Your task to perform on an android device: toggle show notifications on the lock screen Image 0: 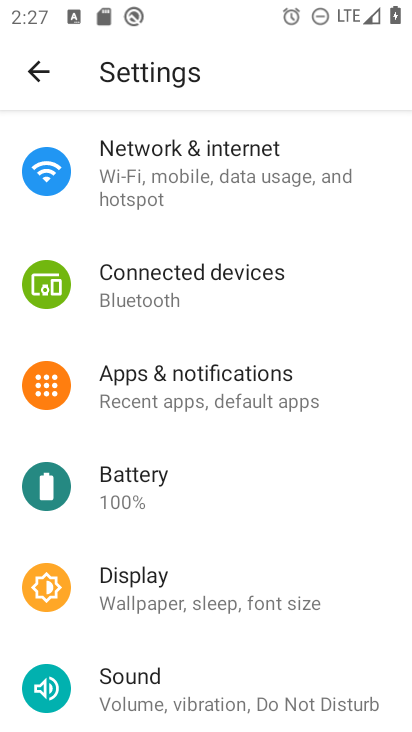
Step 0: press home button
Your task to perform on an android device: toggle show notifications on the lock screen Image 1: 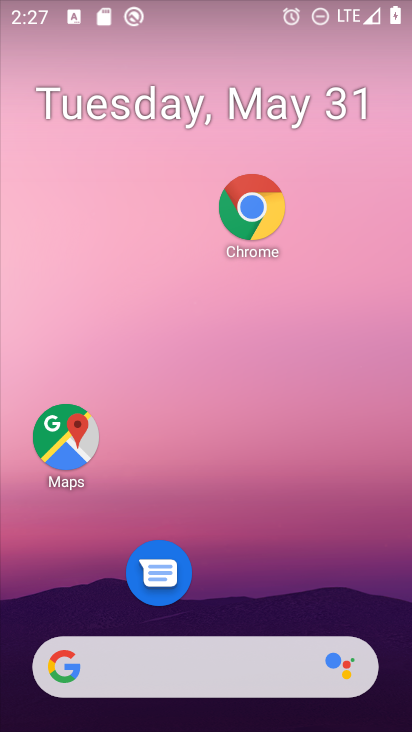
Step 1: drag from (205, 630) to (246, 175)
Your task to perform on an android device: toggle show notifications on the lock screen Image 2: 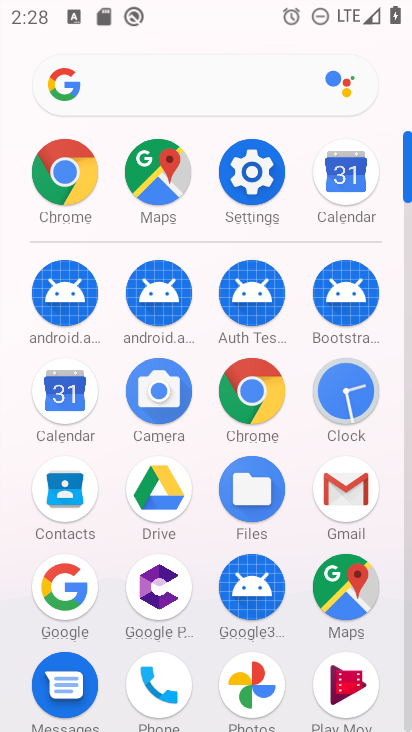
Step 2: click (248, 166)
Your task to perform on an android device: toggle show notifications on the lock screen Image 3: 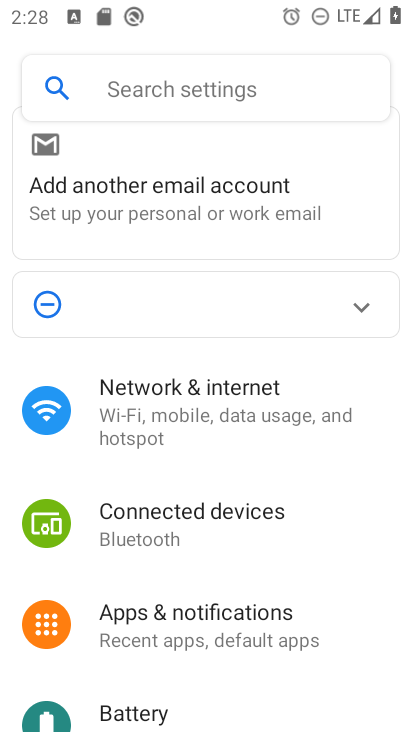
Step 3: click (226, 612)
Your task to perform on an android device: toggle show notifications on the lock screen Image 4: 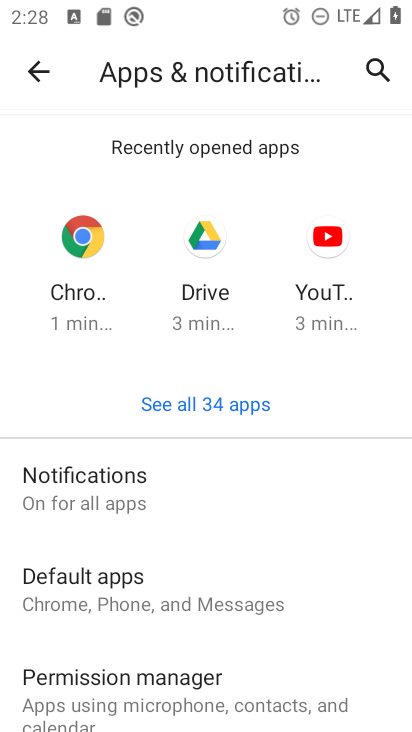
Step 4: click (222, 493)
Your task to perform on an android device: toggle show notifications on the lock screen Image 5: 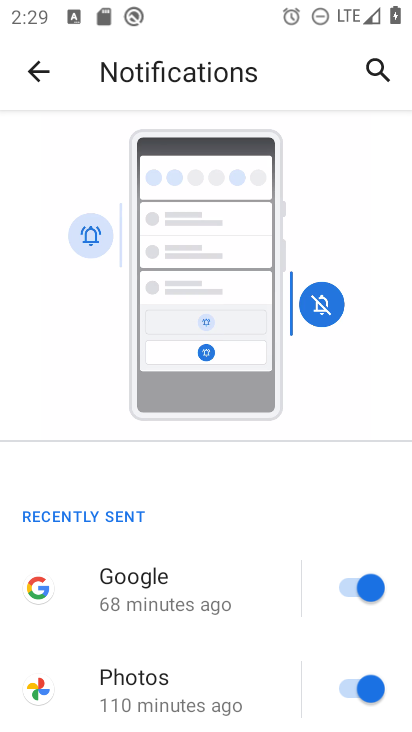
Step 5: drag from (200, 609) to (250, 274)
Your task to perform on an android device: toggle show notifications on the lock screen Image 6: 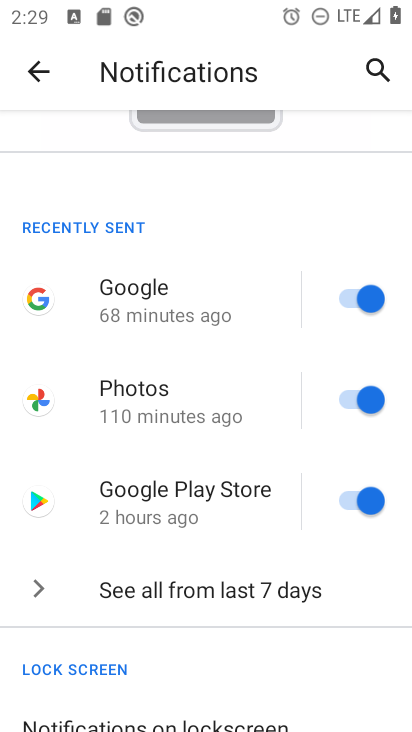
Step 6: drag from (175, 553) to (180, 161)
Your task to perform on an android device: toggle show notifications on the lock screen Image 7: 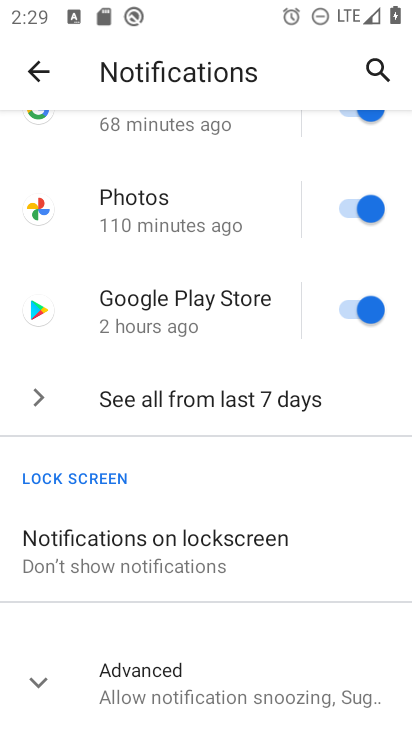
Step 7: click (209, 544)
Your task to perform on an android device: toggle show notifications on the lock screen Image 8: 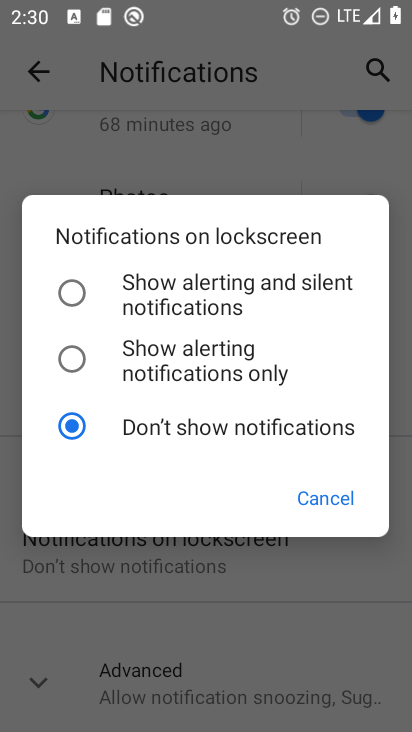
Step 8: click (71, 294)
Your task to perform on an android device: toggle show notifications on the lock screen Image 9: 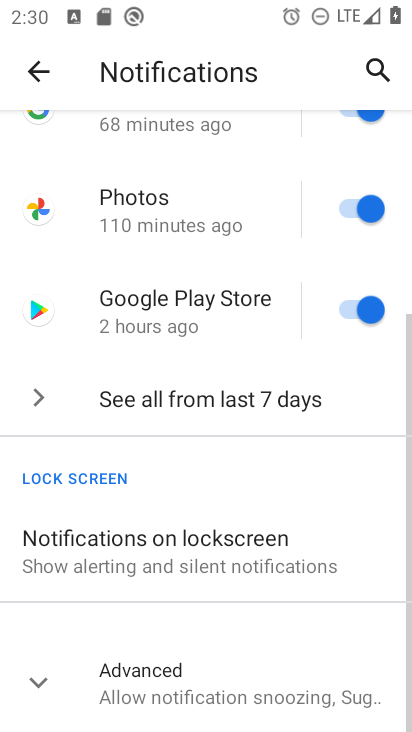
Step 9: task complete